Your task to perform on an android device: turn on javascript in the chrome app Image 0: 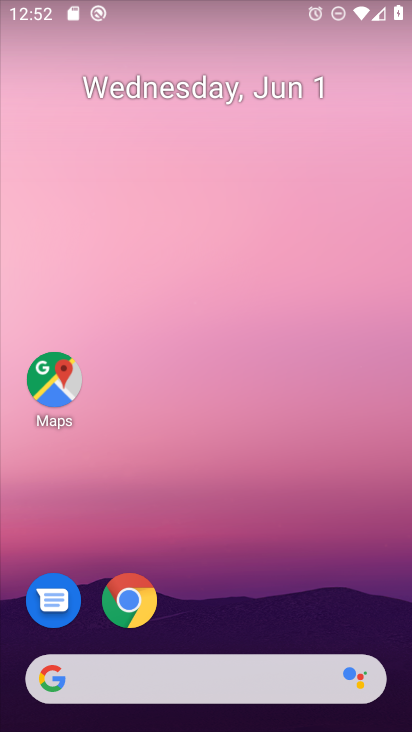
Step 0: click (125, 592)
Your task to perform on an android device: turn on javascript in the chrome app Image 1: 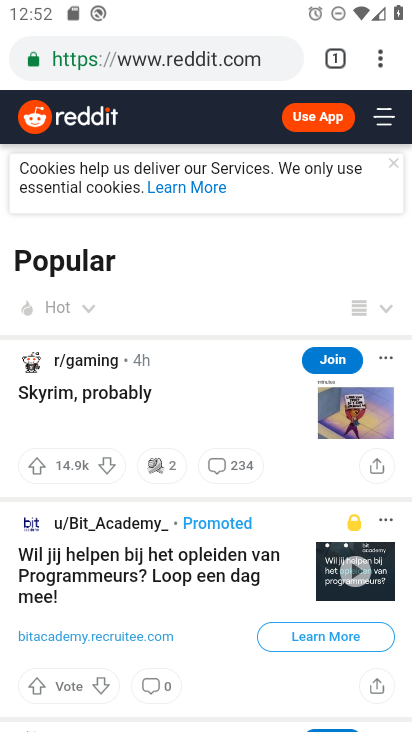
Step 1: click (381, 53)
Your task to perform on an android device: turn on javascript in the chrome app Image 2: 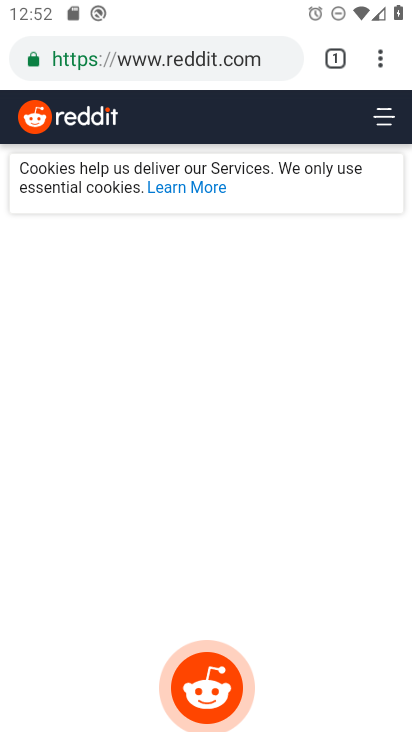
Step 2: click (375, 61)
Your task to perform on an android device: turn on javascript in the chrome app Image 3: 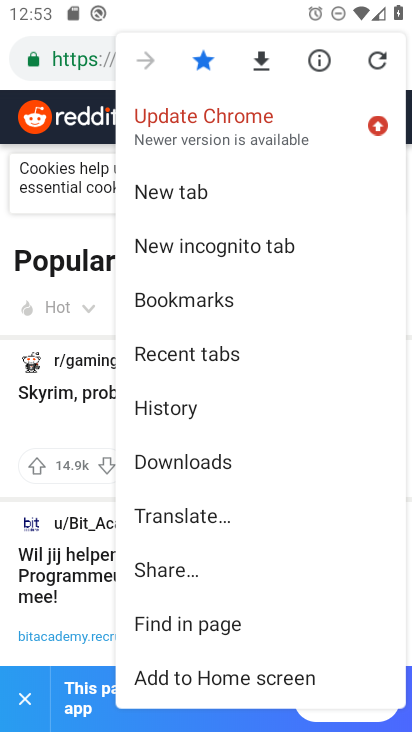
Step 3: drag from (246, 627) to (278, 146)
Your task to perform on an android device: turn on javascript in the chrome app Image 4: 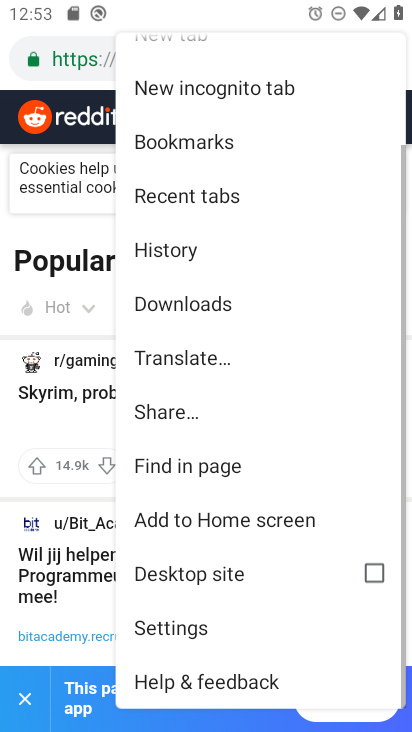
Step 4: click (226, 622)
Your task to perform on an android device: turn on javascript in the chrome app Image 5: 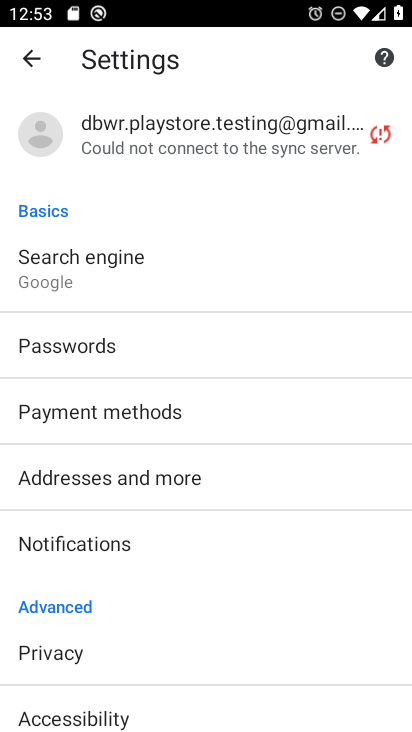
Step 5: drag from (198, 575) to (235, 221)
Your task to perform on an android device: turn on javascript in the chrome app Image 6: 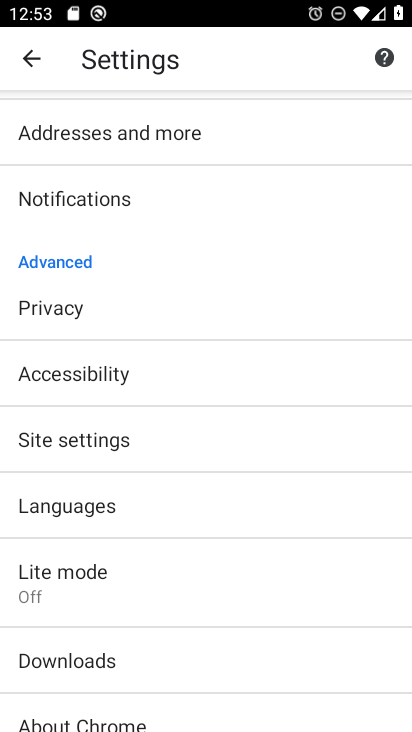
Step 6: click (149, 439)
Your task to perform on an android device: turn on javascript in the chrome app Image 7: 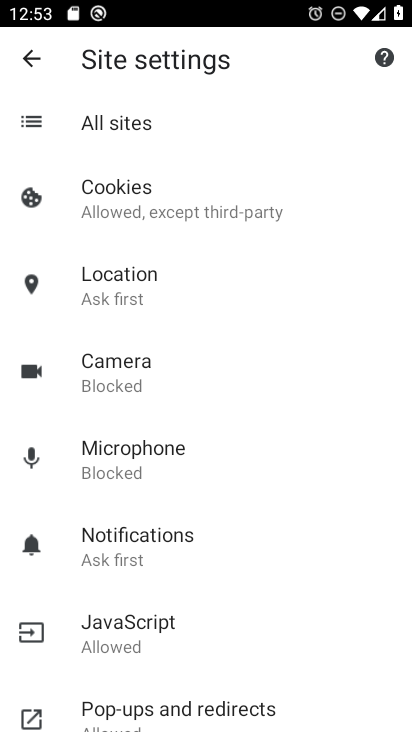
Step 7: click (199, 641)
Your task to perform on an android device: turn on javascript in the chrome app Image 8: 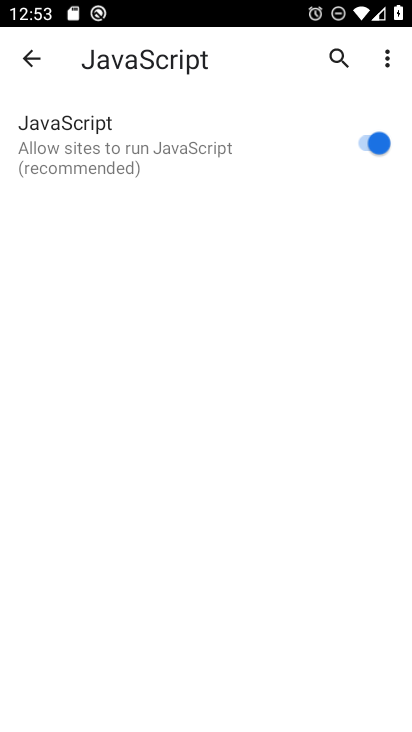
Step 8: task complete